Your task to perform on an android device: toggle sleep mode Image 0: 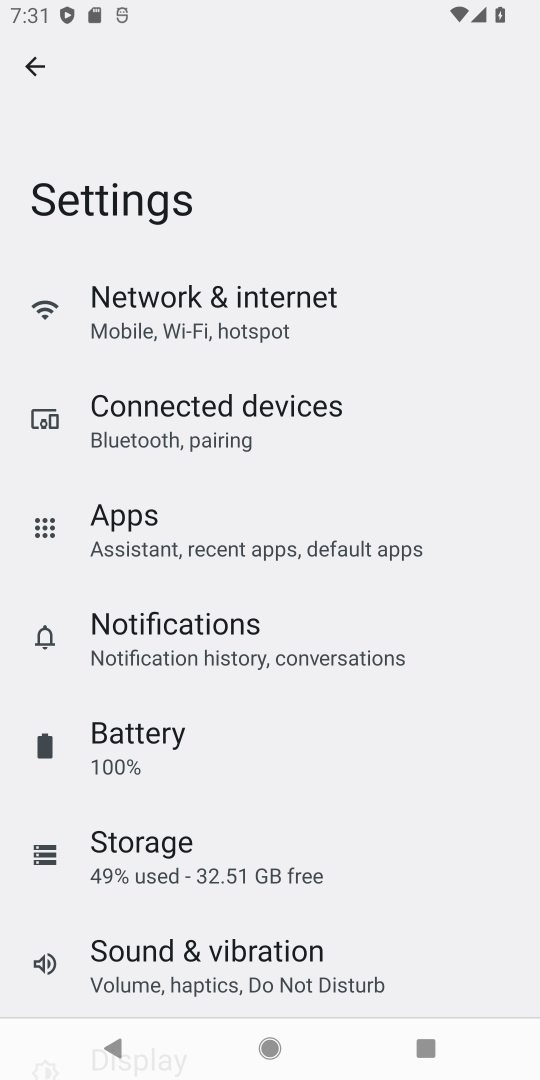
Step 0: press back button
Your task to perform on an android device: toggle sleep mode Image 1: 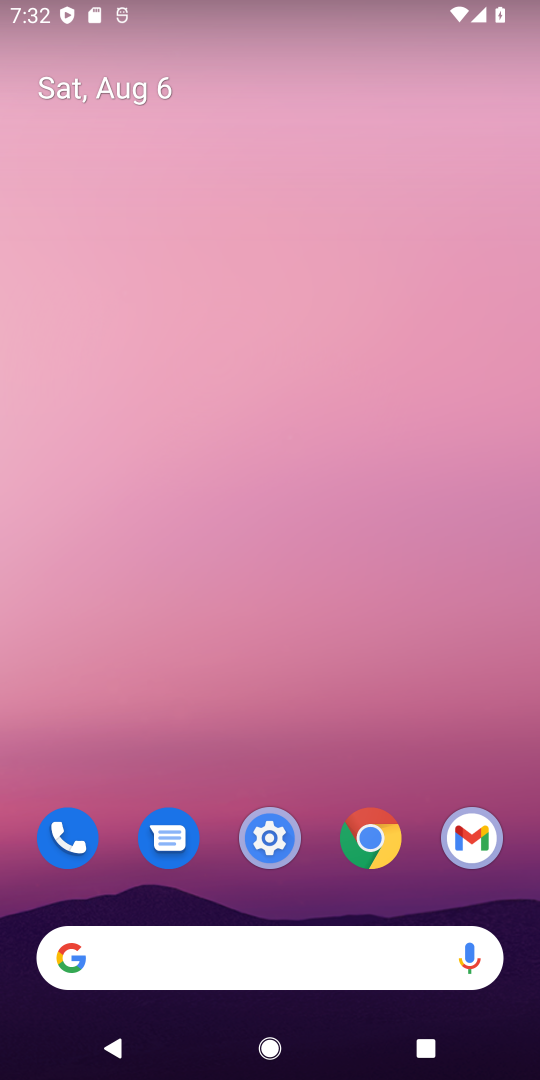
Step 1: click (271, 850)
Your task to perform on an android device: toggle sleep mode Image 2: 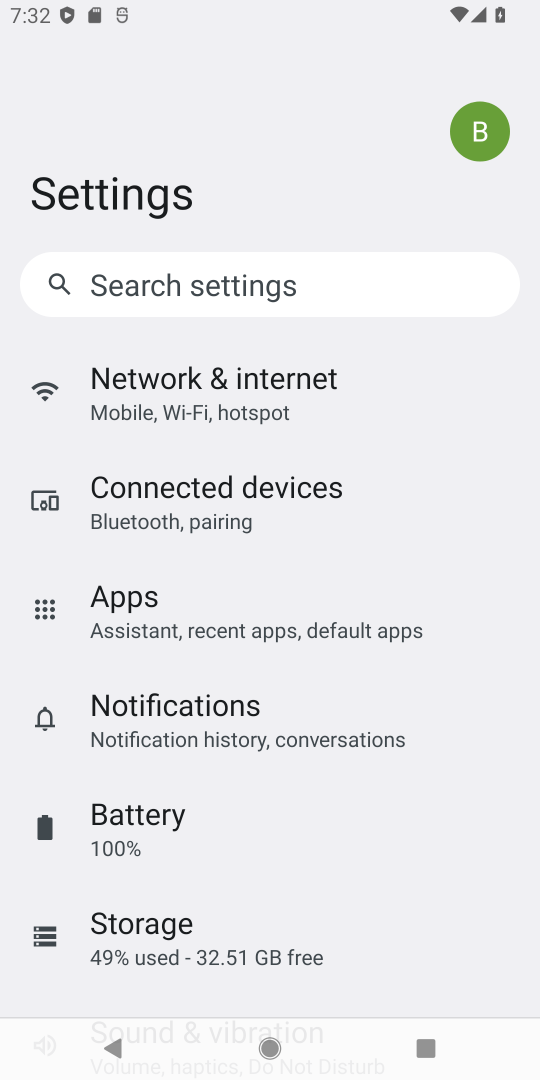
Step 2: task complete